Your task to perform on an android device: allow cookies in the chrome app Image 0: 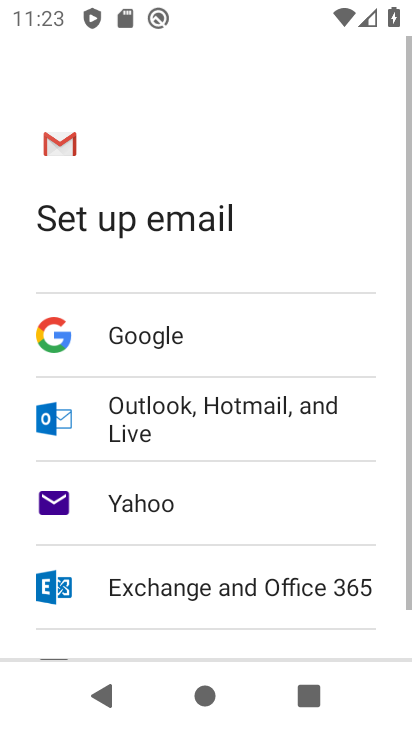
Step 0: press home button
Your task to perform on an android device: allow cookies in the chrome app Image 1: 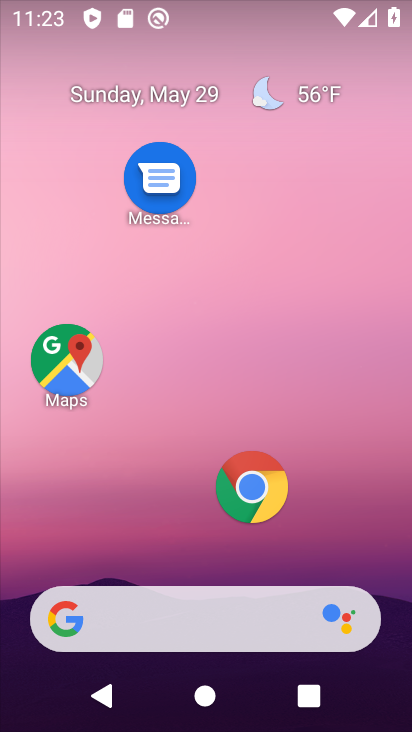
Step 1: click (246, 481)
Your task to perform on an android device: allow cookies in the chrome app Image 2: 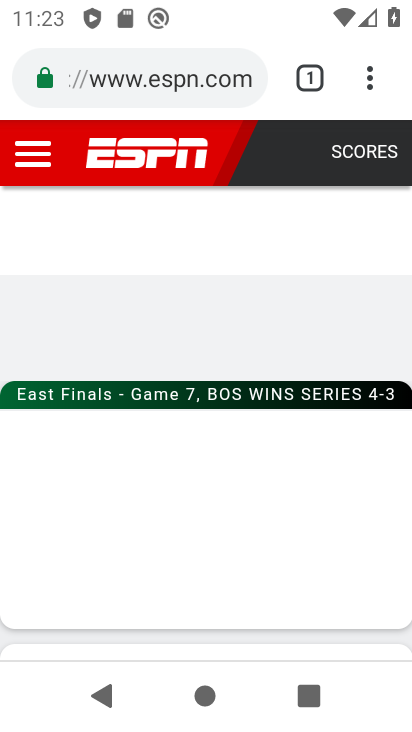
Step 2: click (371, 76)
Your task to perform on an android device: allow cookies in the chrome app Image 3: 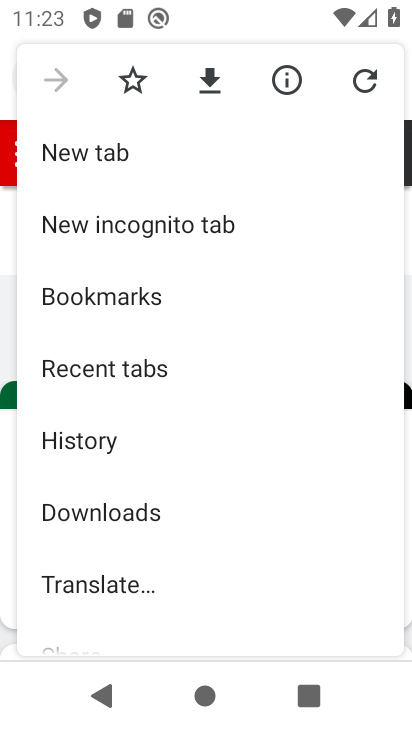
Step 3: drag from (120, 599) to (108, 200)
Your task to perform on an android device: allow cookies in the chrome app Image 4: 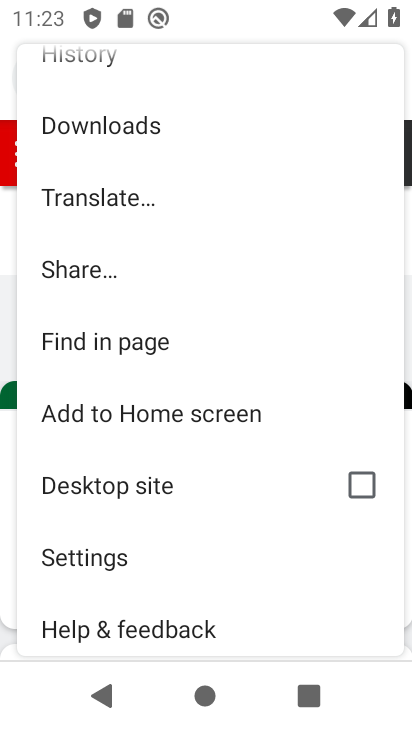
Step 4: click (100, 555)
Your task to perform on an android device: allow cookies in the chrome app Image 5: 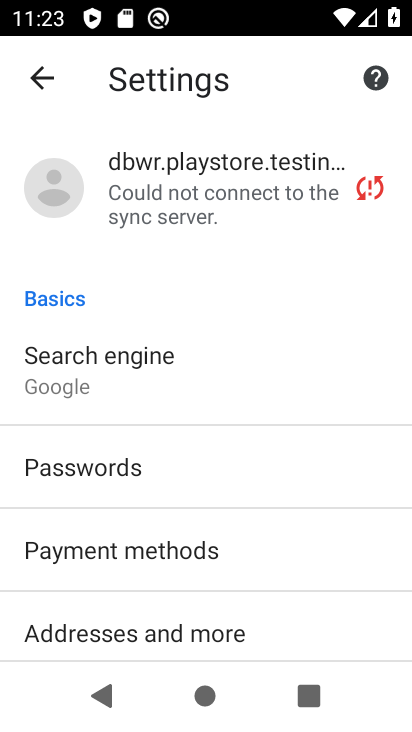
Step 5: drag from (176, 619) to (157, 138)
Your task to perform on an android device: allow cookies in the chrome app Image 6: 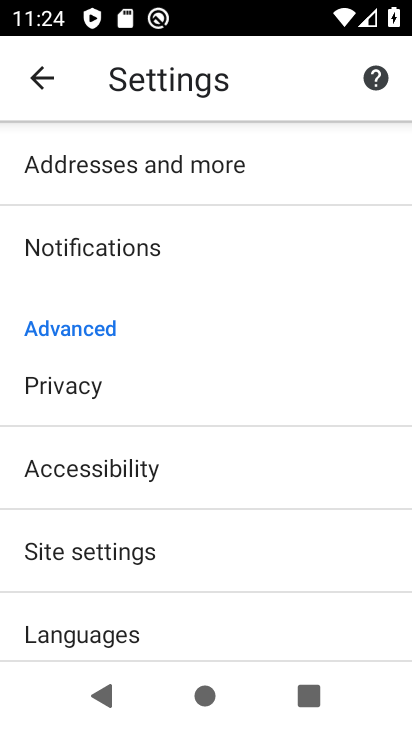
Step 6: click (129, 554)
Your task to perform on an android device: allow cookies in the chrome app Image 7: 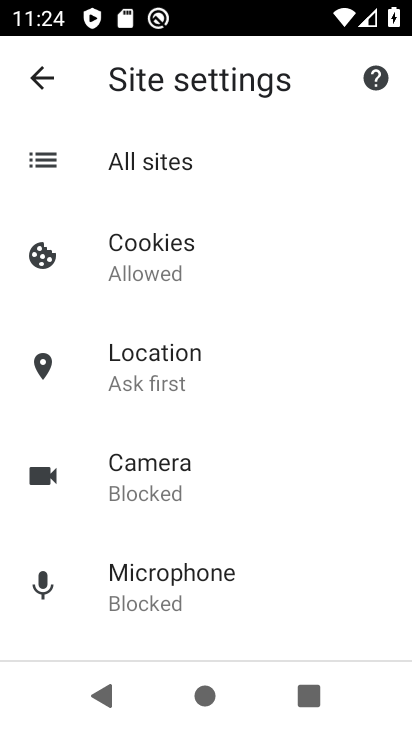
Step 7: click (128, 239)
Your task to perform on an android device: allow cookies in the chrome app Image 8: 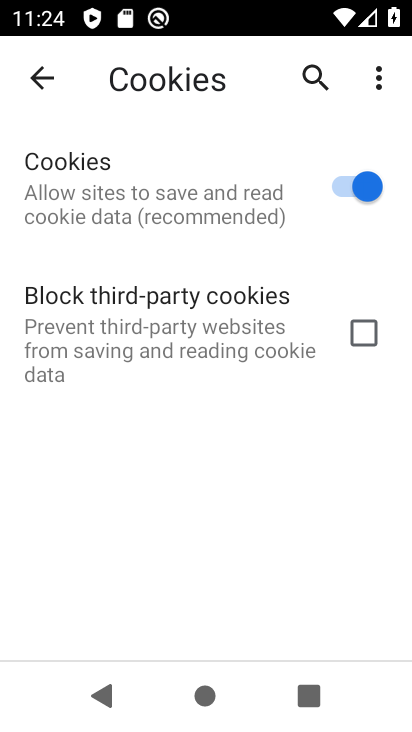
Step 8: task complete